Your task to perform on an android device: check the backup settings in the google photos Image 0: 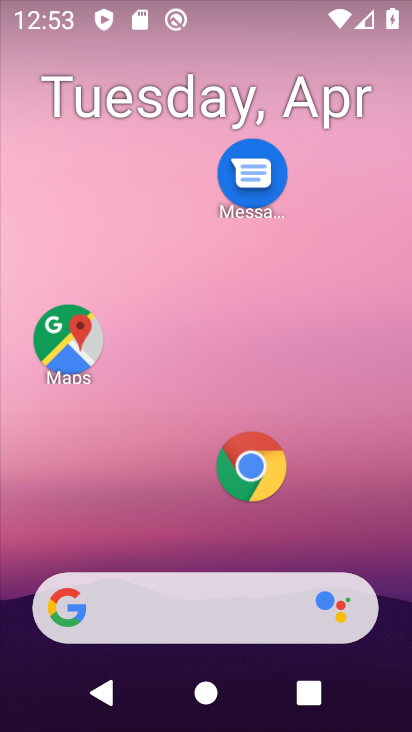
Step 0: drag from (350, 481) to (381, 28)
Your task to perform on an android device: check the backup settings in the google photos Image 1: 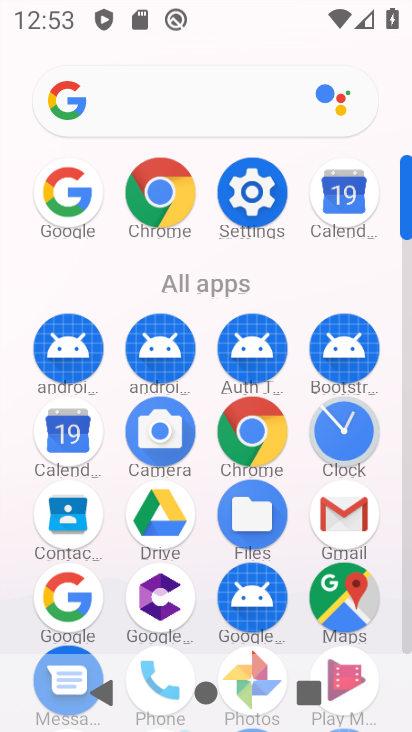
Step 1: drag from (200, 568) to (286, 257)
Your task to perform on an android device: check the backup settings in the google photos Image 2: 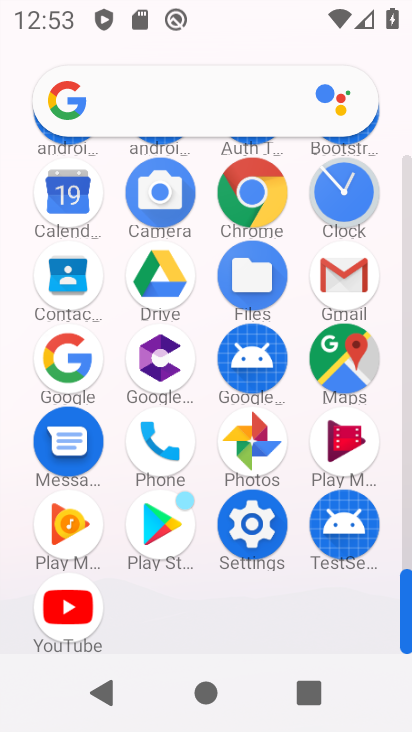
Step 2: click (241, 435)
Your task to perform on an android device: check the backup settings in the google photos Image 3: 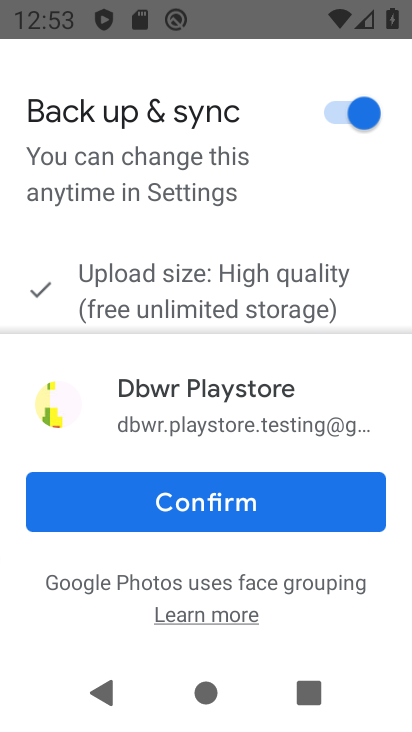
Step 3: click (133, 519)
Your task to perform on an android device: check the backup settings in the google photos Image 4: 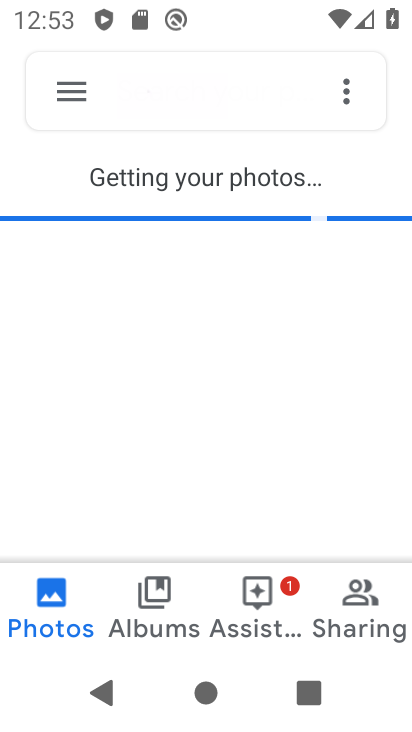
Step 4: click (69, 83)
Your task to perform on an android device: check the backup settings in the google photos Image 5: 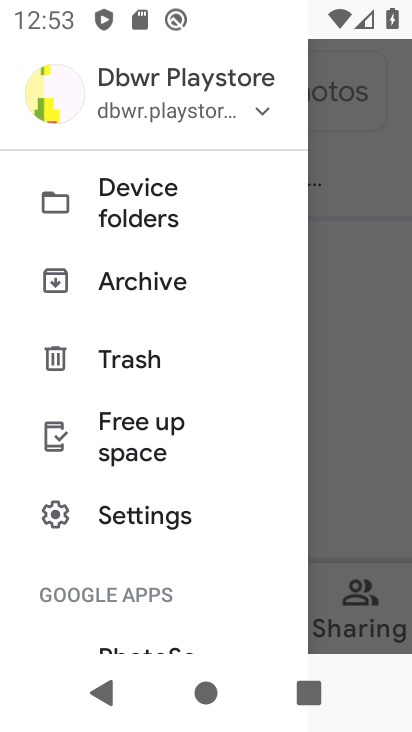
Step 5: click (146, 512)
Your task to perform on an android device: check the backup settings in the google photos Image 6: 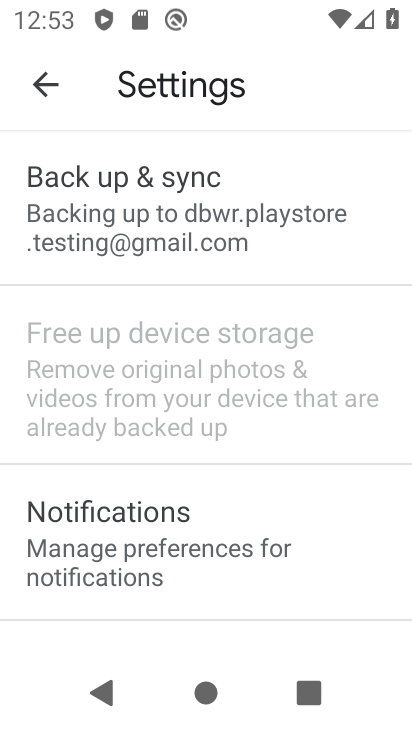
Step 6: click (167, 225)
Your task to perform on an android device: check the backup settings in the google photos Image 7: 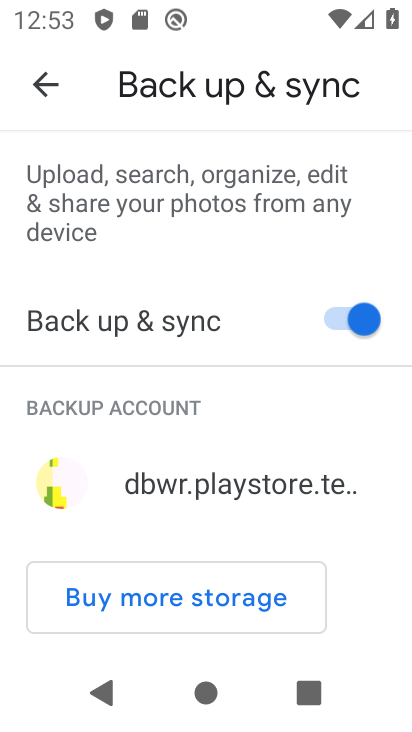
Step 7: task complete